Your task to perform on an android device: turn on the 12-hour format for clock Image 0: 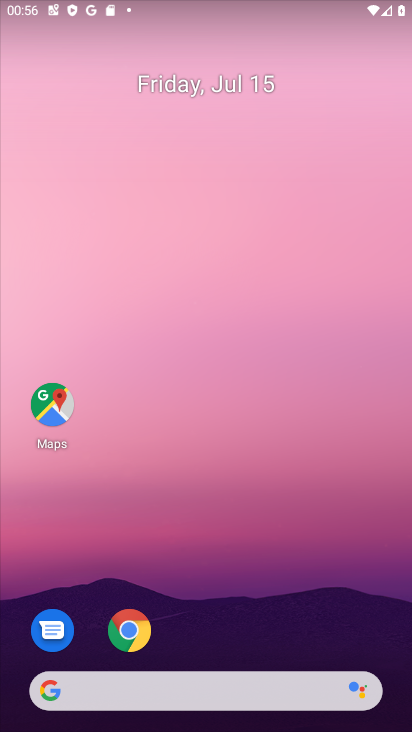
Step 0: drag from (232, 655) to (199, 152)
Your task to perform on an android device: turn on the 12-hour format for clock Image 1: 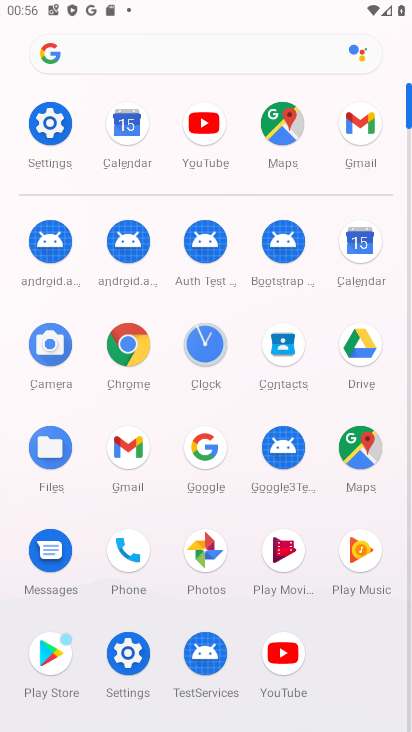
Step 1: click (205, 356)
Your task to perform on an android device: turn on the 12-hour format for clock Image 2: 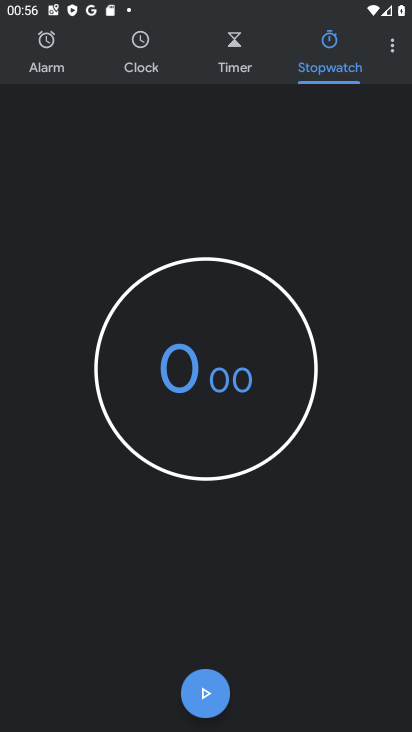
Step 2: click (385, 41)
Your task to perform on an android device: turn on the 12-hour format for clock Image 3: 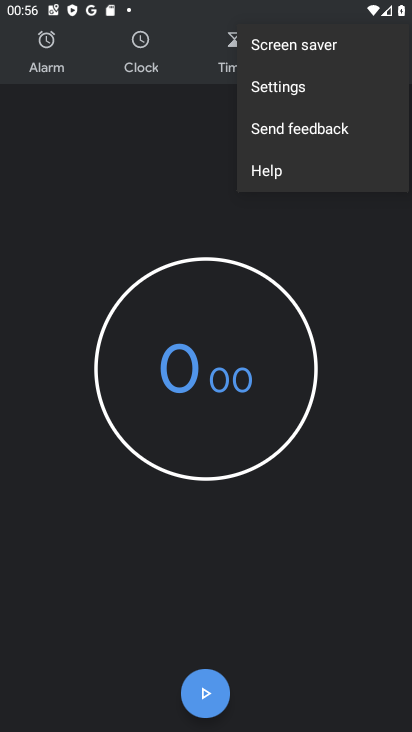
Step 3: click (299, 92)
Your task to perform on an android device: turn on the 12-hour format for clock Image 4: 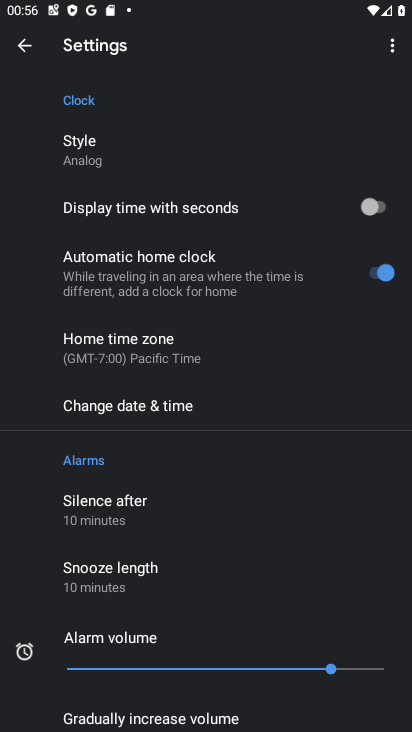
Step 4: drag from (136, 562) to (136, 290)
Your task to perform on an android device: turn on the 12-hour format for clock Image 5: 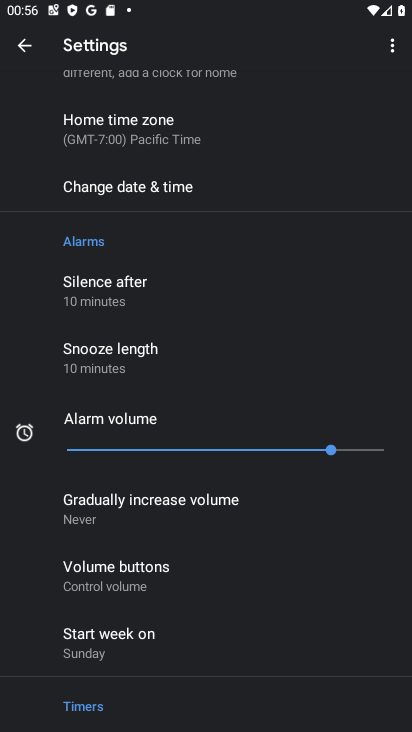
Step 5: drag from (126, 154) to (126, 498)
Your task to perform on an android device: turn on the 12-hour format for clock Image 6: 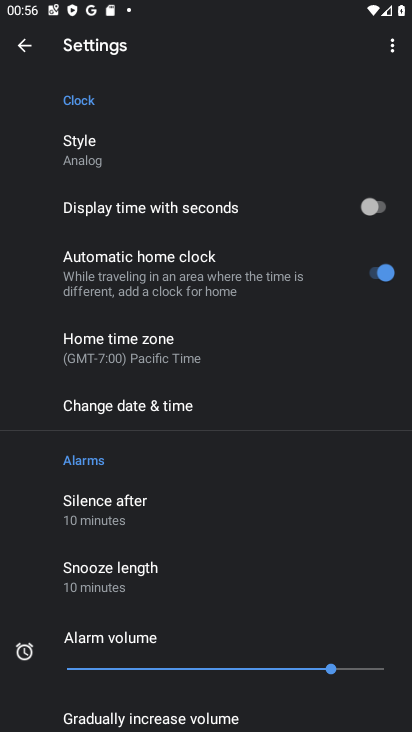
Step 6: click (104, 414)
Your task to perform on an android device: turn on the 12-hour format for clock Image 7: 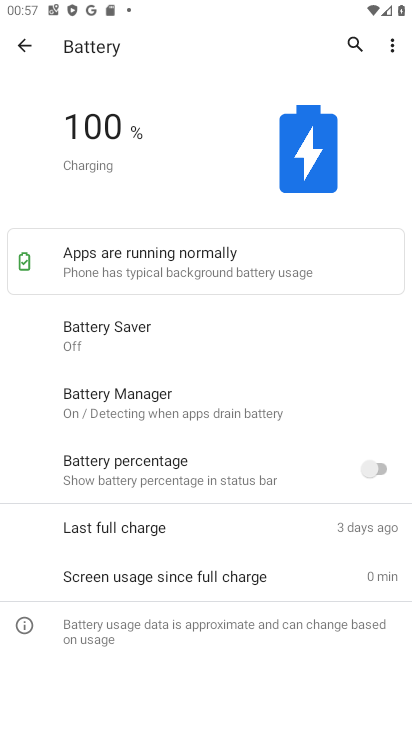
Step 7: task complete